Your task to perform on an android device: turn off location Image 0: 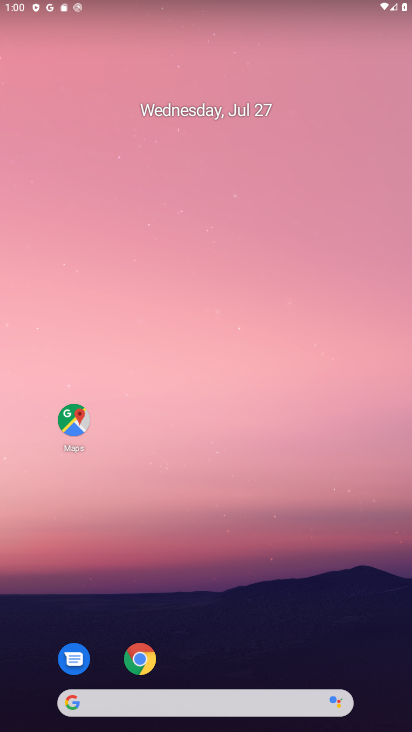
Step 0: drag from (344, 641) to (279, 201)
Your task to perform on an android device: turn off location Image 1: 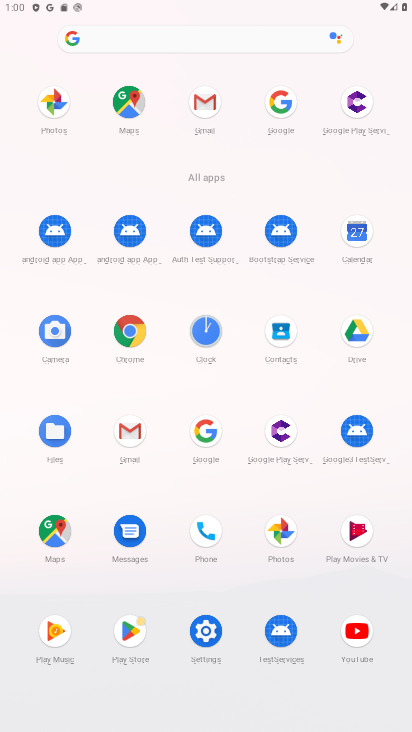
Step 1: click (199, 631)
Your task to perform on an android device: turn off location Image 2: 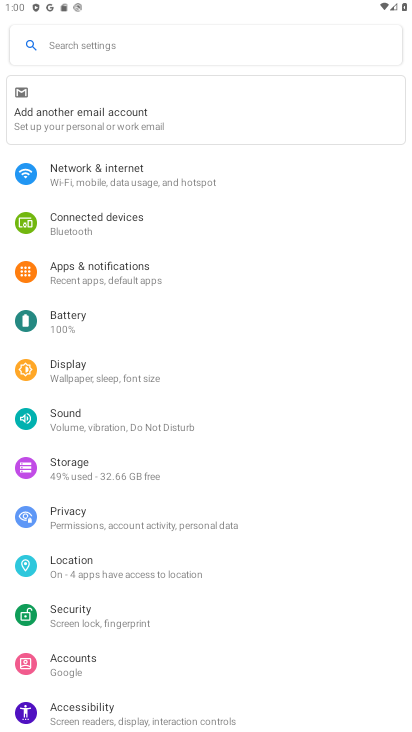
Step 2: click (74, 553)
Your task to perform on an android device: turn off location Image 3: 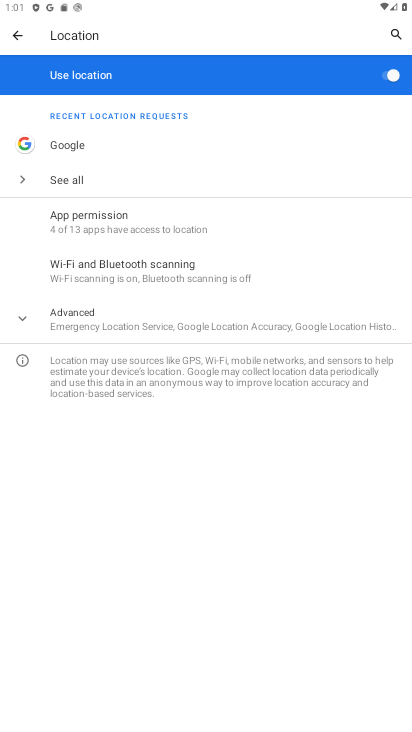
Step 3: click (388, 73)
Your task to perform on an android device: turn off location Image 4: 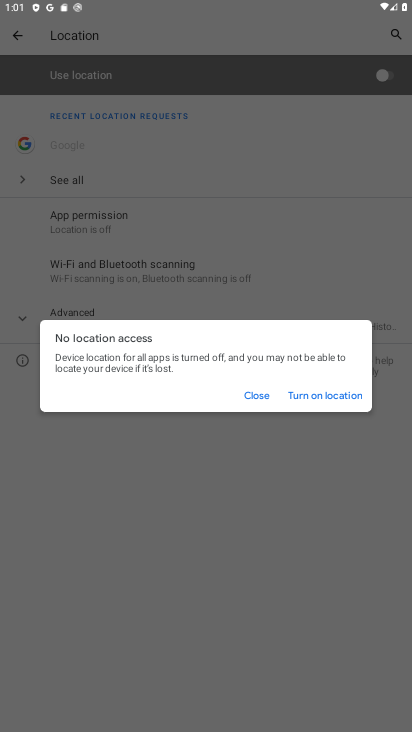
Step 4: task complete